Your task to perform on an android device: Open ESPN.com Image 0: 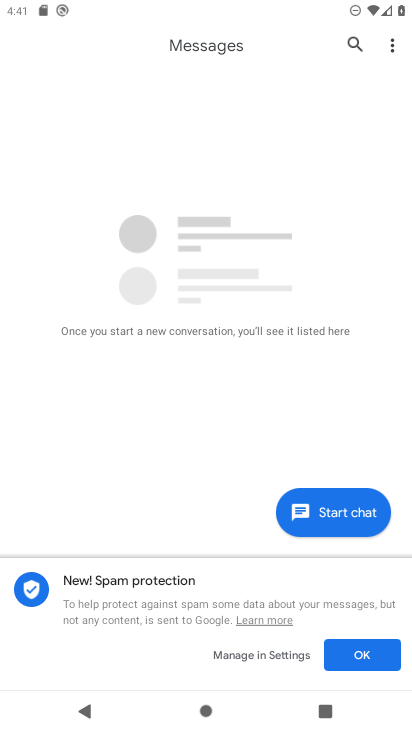
Step 0: press home button
Your task to perform on an android device: Open ESPN.com Image 1: 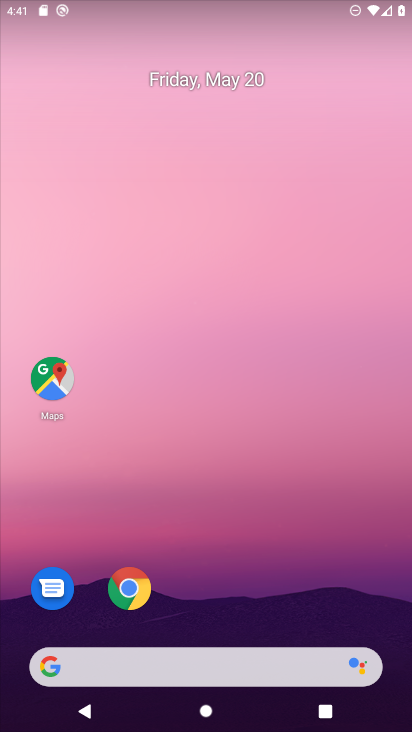
Step 1: click (129, 586)
Your task to perform on an android device: Open ESPN.com Image 2: 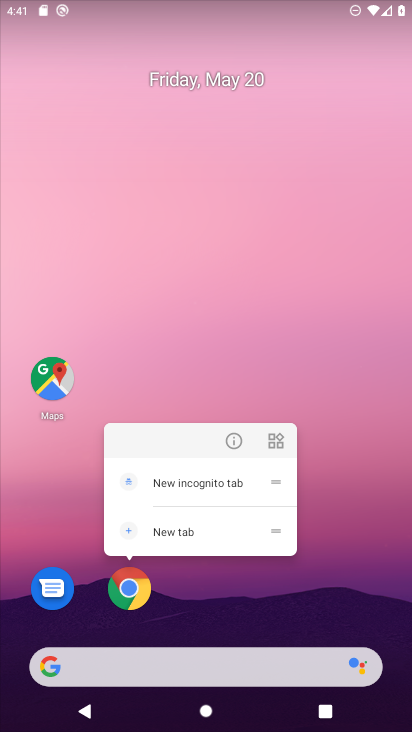
Step 2: click (131, 590)
Your task to perform on an android device: Open ESPN.com Image 3: 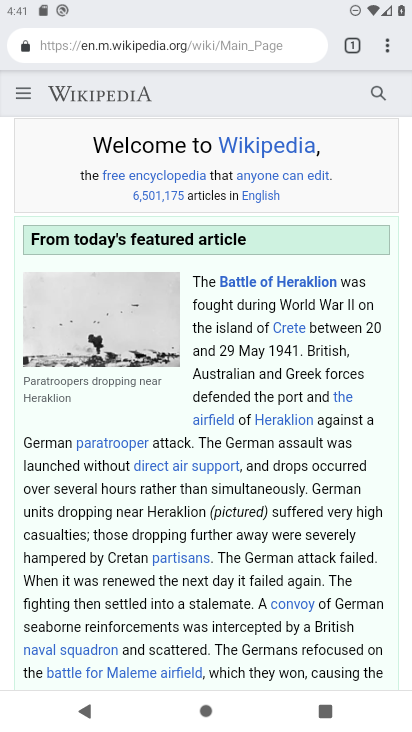
Step 3: press back button
Your task to perform on an android device: Open ESPN.com Image 4: 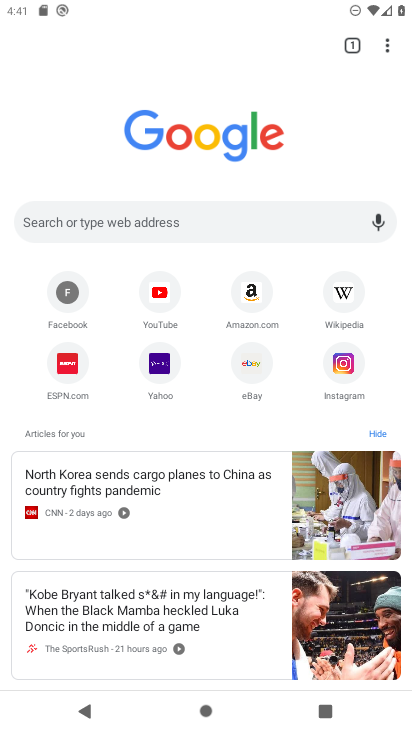
Step 4: click (68, 373)
Your task to perform on an android device: Open ESPN.com Image 5: 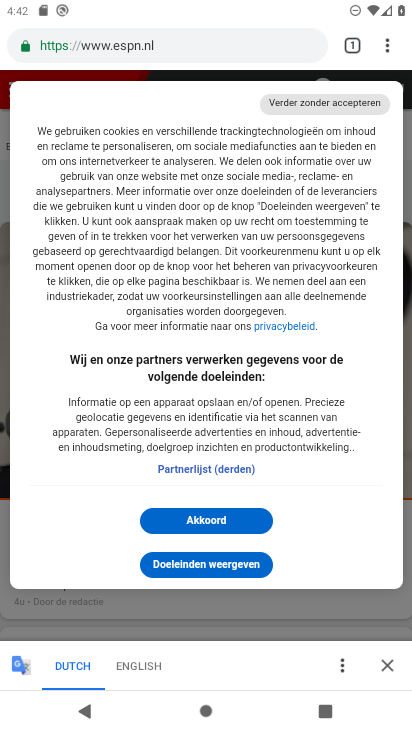
Step 5: task complete